Your task to perform on an android device: Open battery settings Image 0: 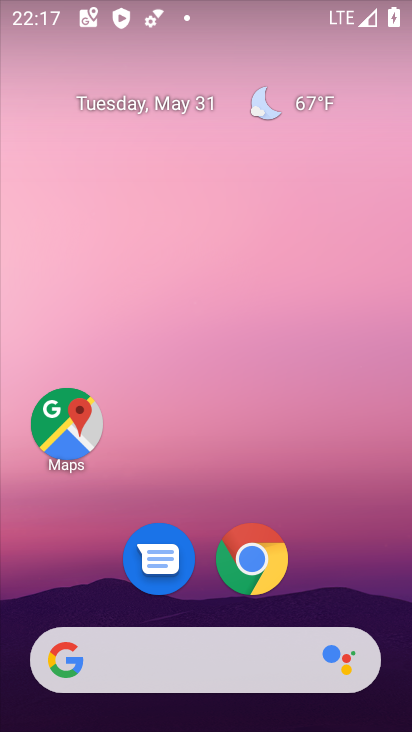
Step 0: drag from (314, 595) to (309, 45)
Your task to perform on an android device: Open battery settings Image 1: 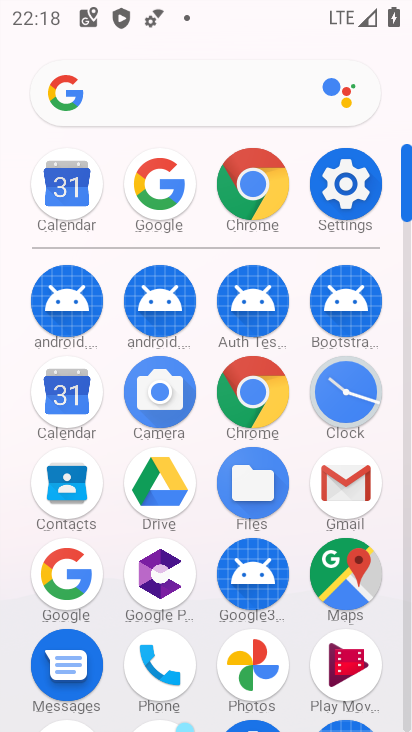
Step 1: click (347, 190)
Your task to perform on an android device: Open battery settings Image 2: 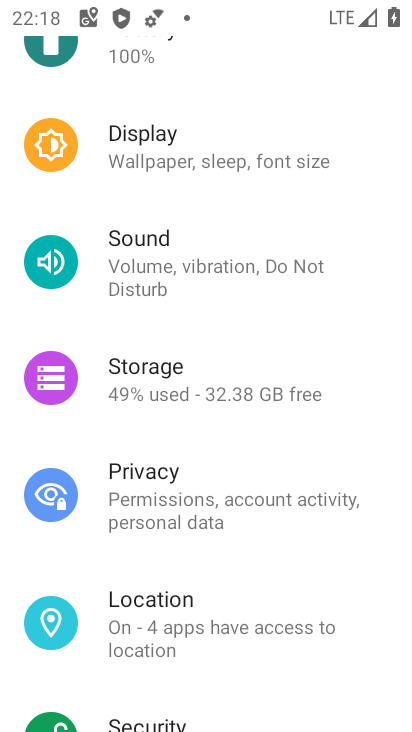
Step 2: drag from (208, 196) to (206, 625)
Your task to perform on an android device: Open battery settings Image 3: 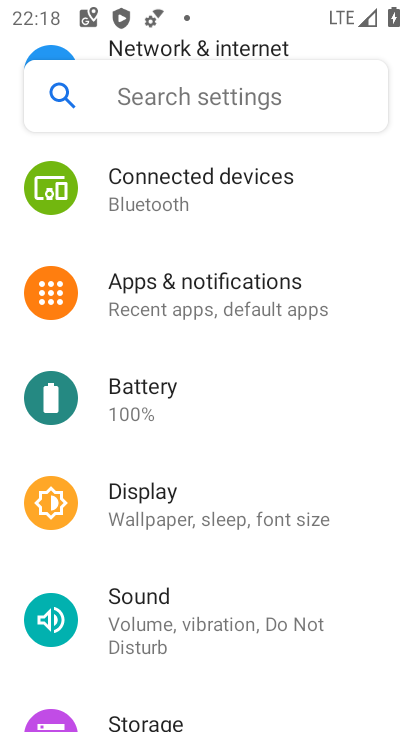
Step 3: click (164, 412)
Your task to perform on an android device: Open battery settings Image 4: 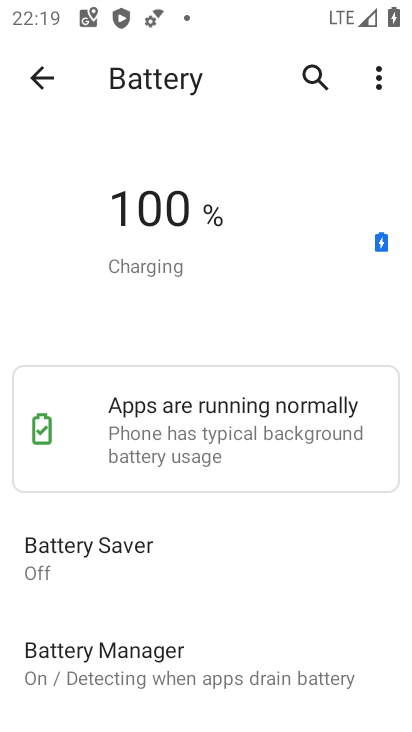
Step 4: task complete